Your task to perform on an android device: toggle airplane mode Image 0: 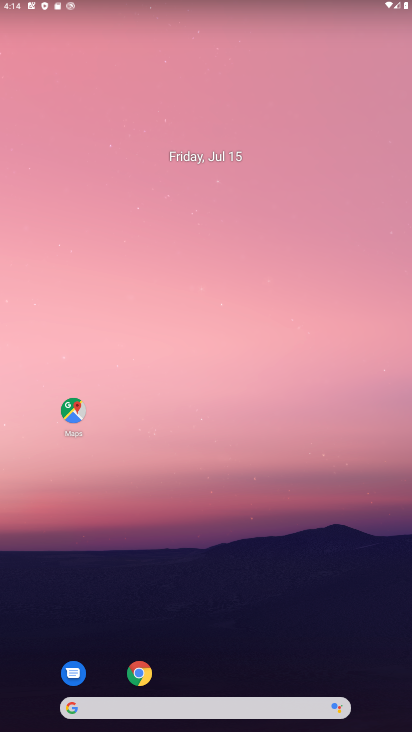
Step 0: drag from (171, 618) to (173, 244)
Your task to perform on an android device: toggle airplane mode Image 1: 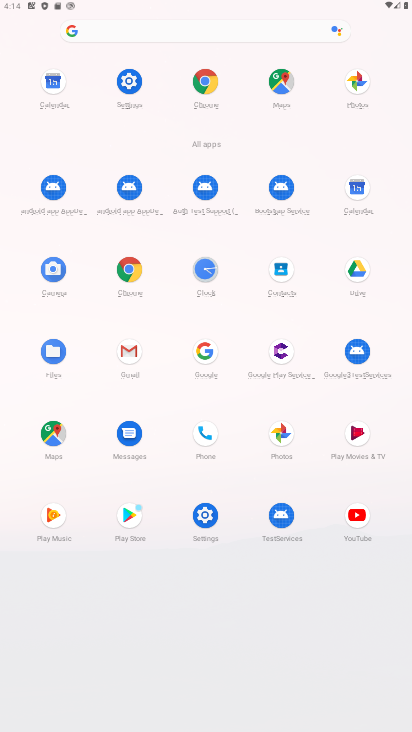
Step 1: click (126, 80)
Your task to perform on an android device: toggle airplane mode Image 2: 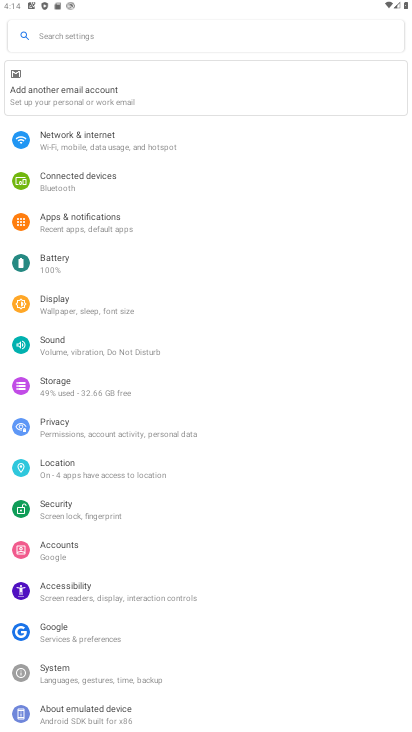
Step 2: click (130, 136)
Your task to perform on an android device: toggle airplane mode Image 3: 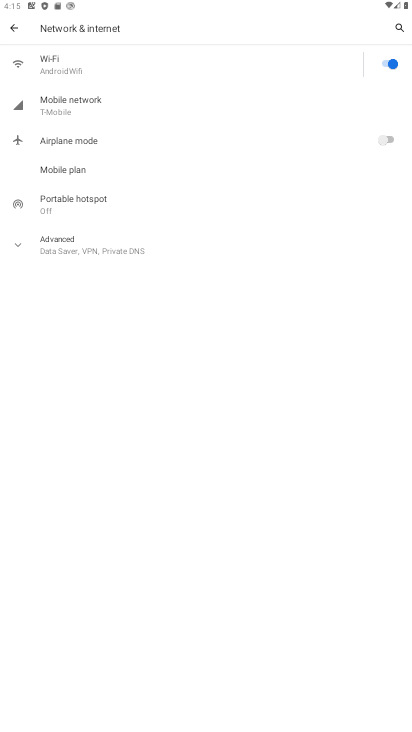
Step 3: click (105, 138)
Your task to perform on an android device: toggle airplane mode Image 4: 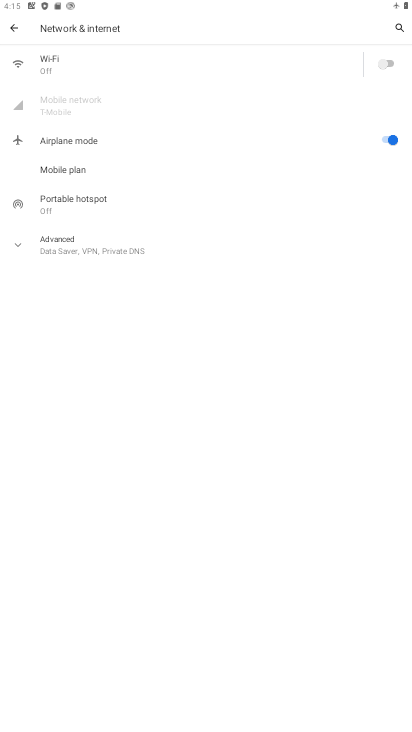
Step 4: task complete